Your task to perform on an android device: Open the Play Movies app and select the watchlist tab. Image 0: 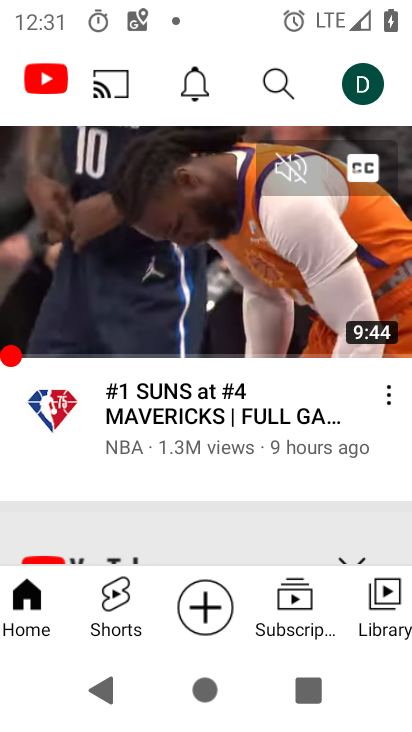
Step 0: press home button
Your task to perform on an android device: Open the Play Movies app and select the watchlist tab. Image 1: 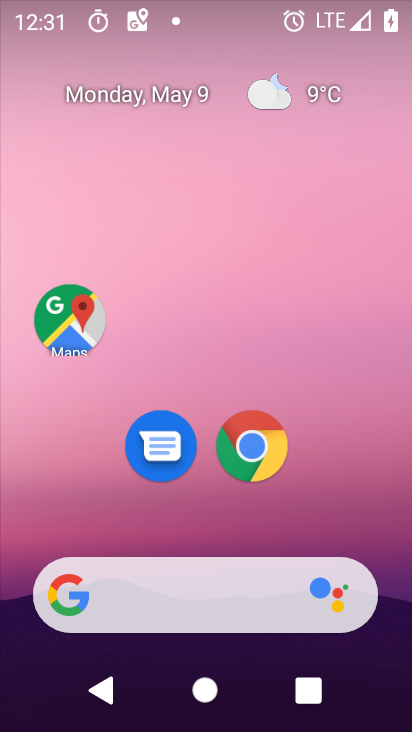
Step 1: drag from (365, 552) to (324, 8)
Your task to perform on an android device: Open the Play Movies app and select the watchlist tab. Image 2: 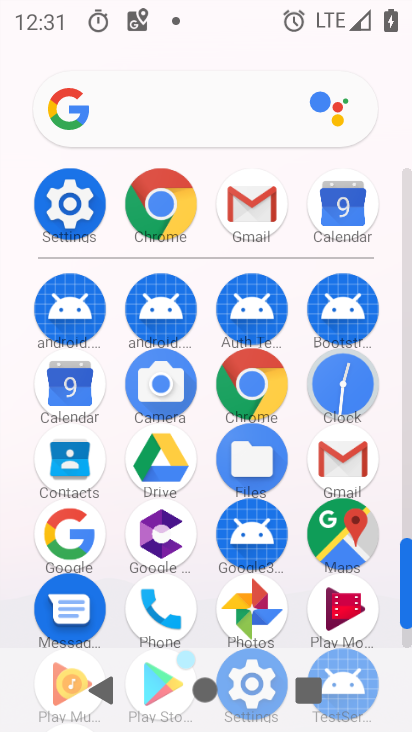
Step 2: click (340, 614)
Your task to perform on an android device: Open the Play Movies app and select the watchlist tab. Image 3: 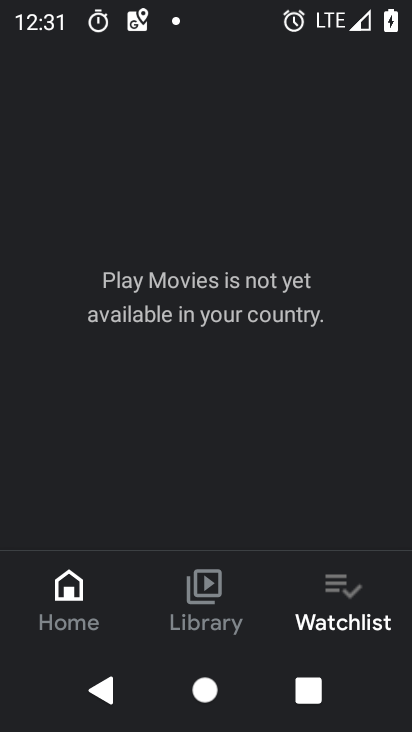
Step 3: click (340, 615)
Your task to perform on an android device: Open the Play Movies app and select the watchlist tab. Image 4: 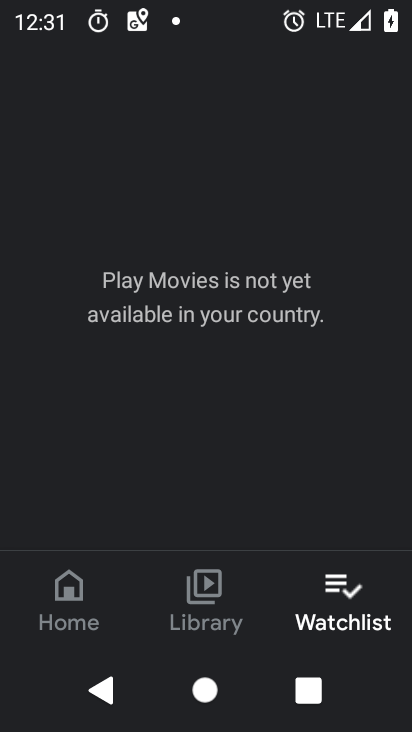
Step 4: task complete